Your task to perform on an android device: allow cookies in the chrome app Image 0: 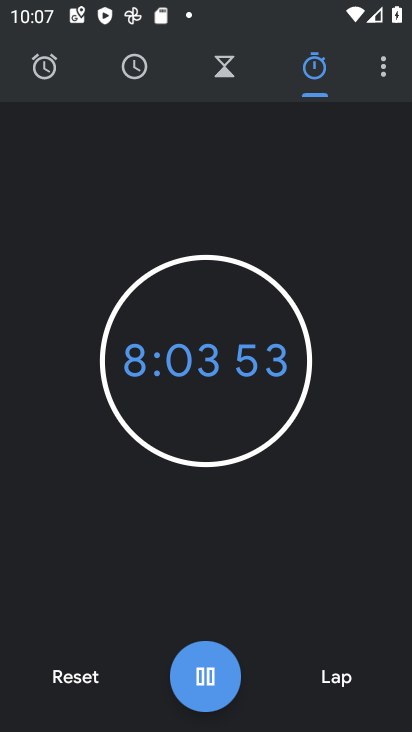
Step 0: press home button
Your task to perform on an android device: allow cookies in the chrome app Image 1: 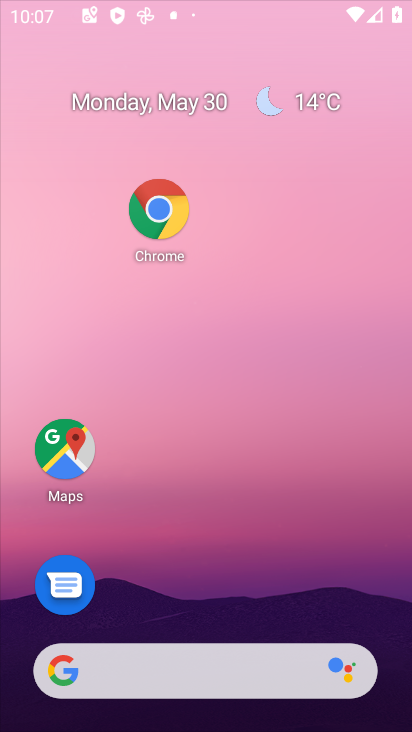
Step 1: drag from (281, 560) to (325, 5)
Your task to perform on an android device: allow cookies in the chrome app Image 2: 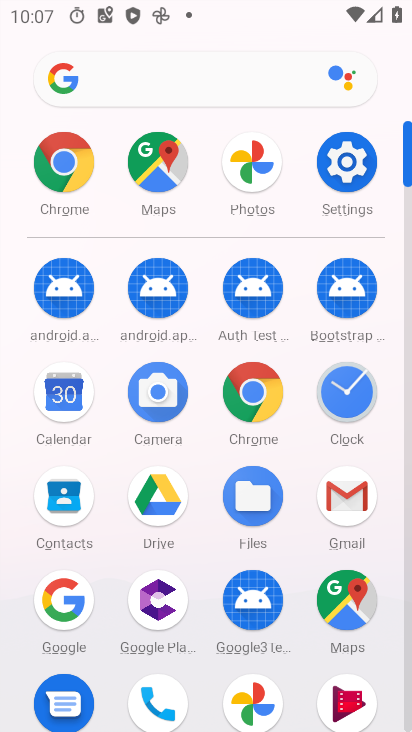
Step 2: click (254, 397)
Your task to perform on an android device: allow cookies in the chrome app Image 3: 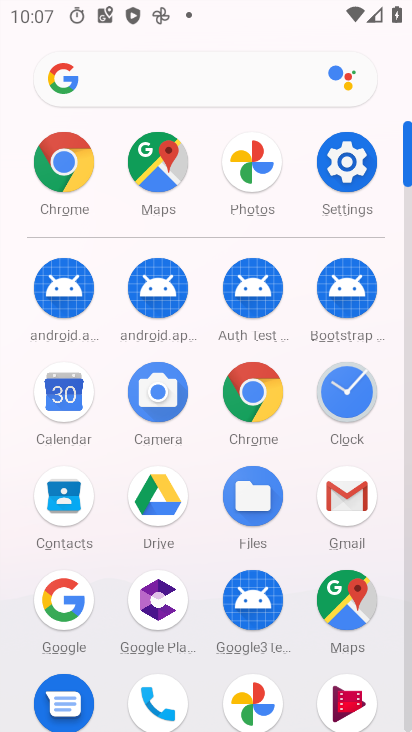
Step 3: click (254, 397)
Your task to perform on an android device: allow cookies in the chrome app Image 4: 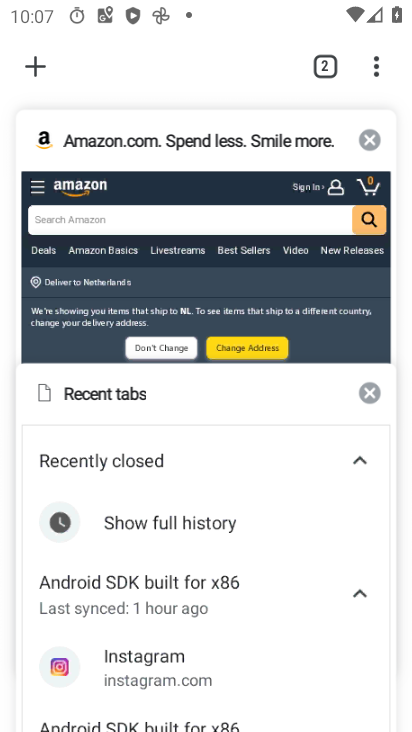
Step 4: click (271, 229)
Your task to perform on an android device: allow cookies in the chrome app Image 5: 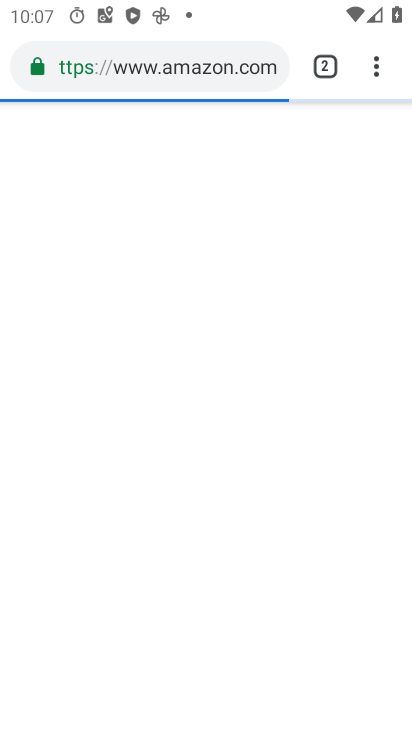
Step 5: click (378, 68)
Your task to perform on an android device: allow cookies in the chrome app Image 6: 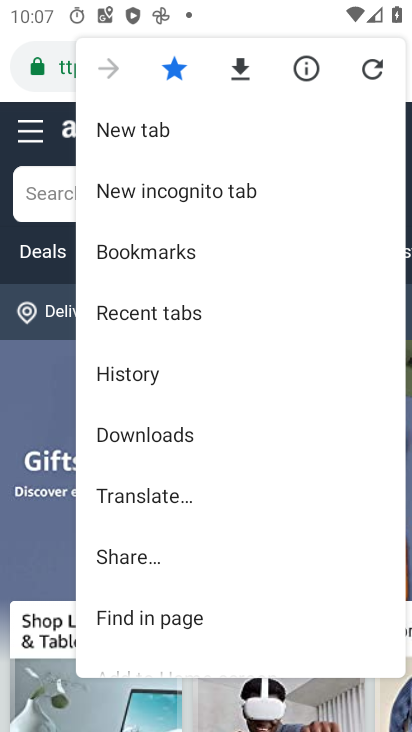
Step 6: drag from (166, 592) to (315, 94)
Your task to perform on an android device: allow cookies in the chrome app Image 7: 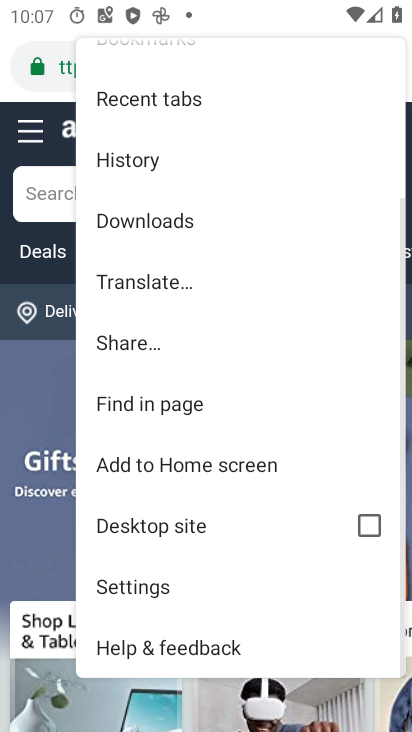
Step 7: click (167, 590)
Your task to perform on an android device: allow cookies in the chrome app Image 8: 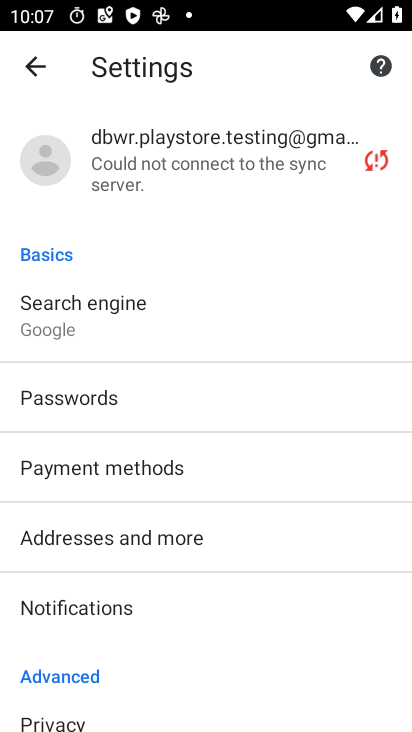
Step 8: drag from (212, 519) to (269, 251)
Your task to perform on an android device: allow cookies in the chrome app Image 9: 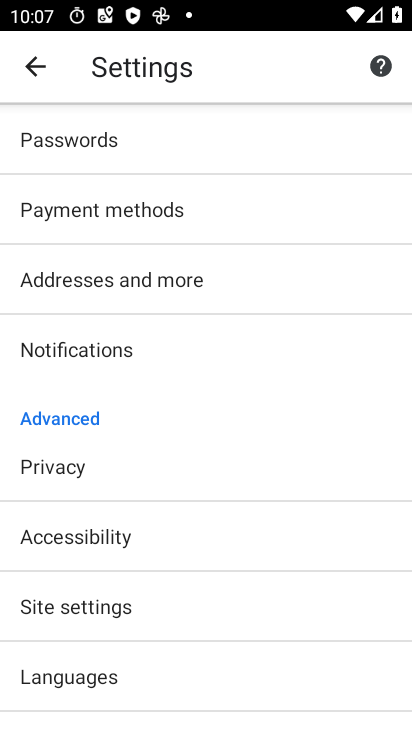
Step 9: click (130, 604)
Your task to perform on an android device: allow cookies in the chrome app Image 10: 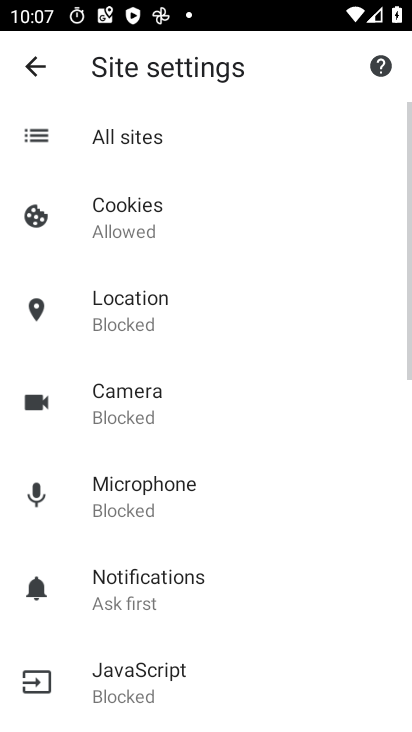
Step 10: click (202, 211)
Your task to perform on an android device: allow cookies in the chrome app Image 11: 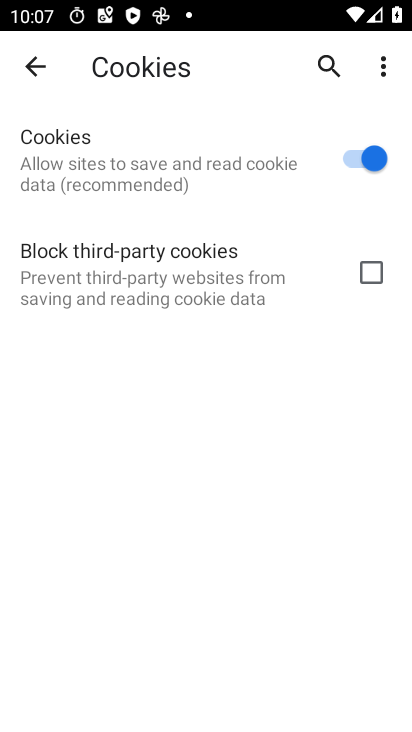
Step 11: task complete